Your task to perform on an android device: toggle improve location accuracy Image 0: 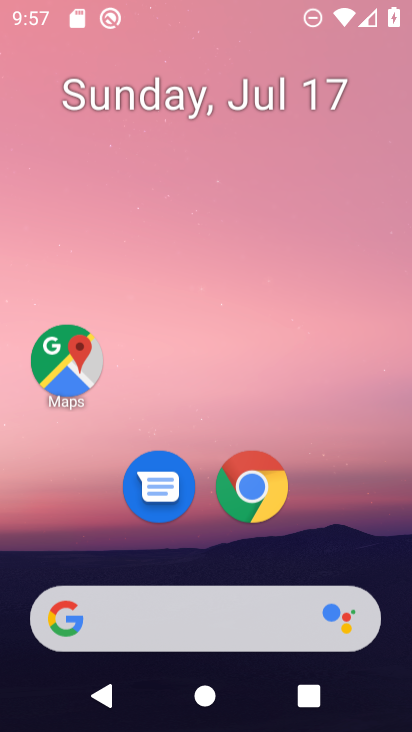
Step 0: press home button
Your task to perform on an android device: toggle improve location accuracy Image 1: 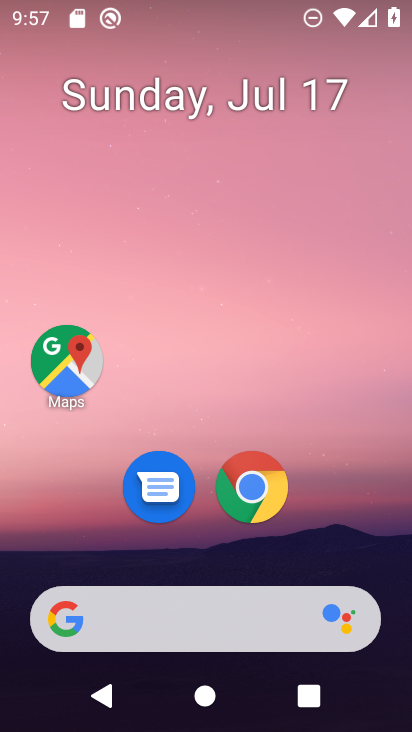
Step 1: drag from (326, 544) to (320, 65)
Your task to perform on an android device: toggle improve location accuracy Image 2: 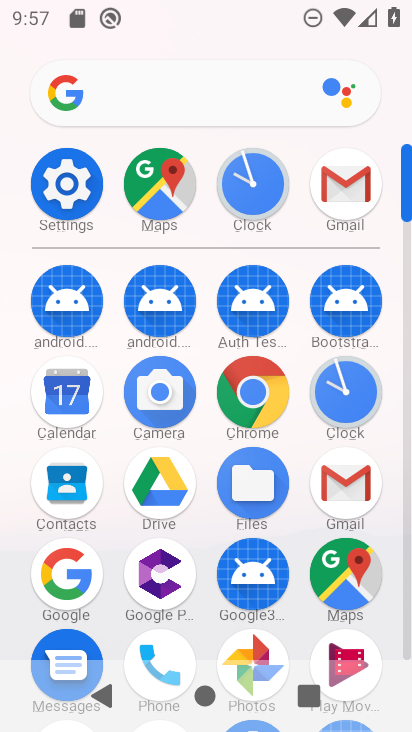
Step 2: click (76, 204)
Your task to perform on an android device: toggle improve location accuracy Image 3: 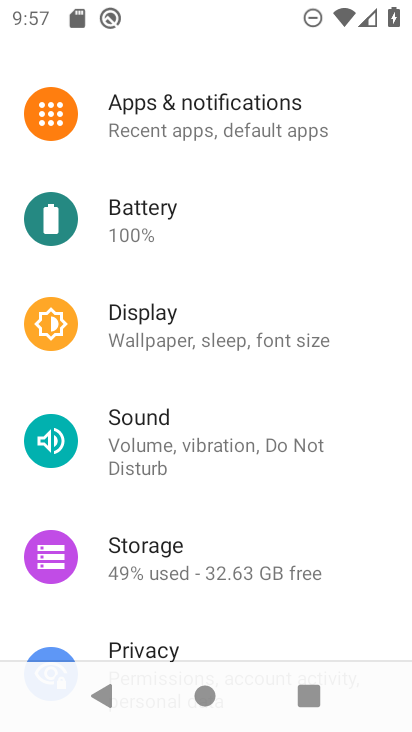
Step 3: drag from (390, 575) to (392, 159)
Your task to perform on an android device: toggle improve location accuracy Image 4: 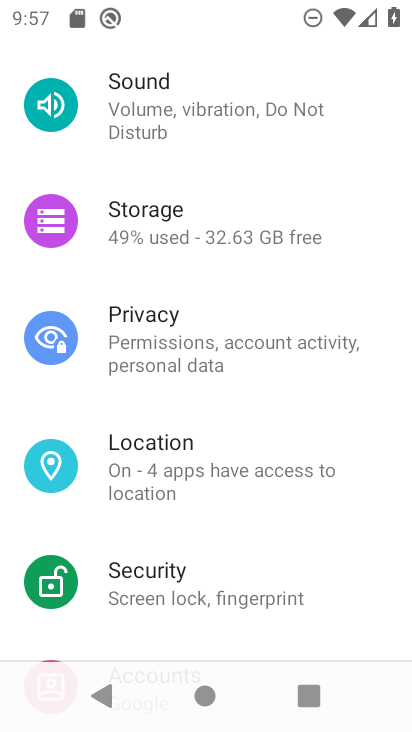
Step 4: click (120, 473)
Your task to perform on an android device: toggle improve location accuracy Image 5: 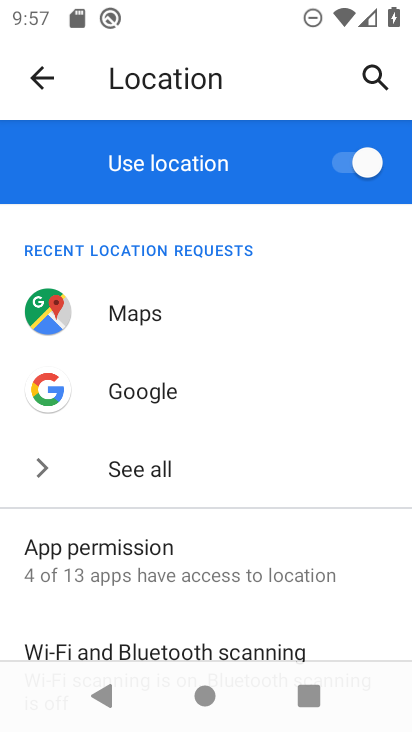
Step 5: drag from (384, 545) to (386, 54)
Your task to perform on an android device: toggle improve location accuracy Image 6: 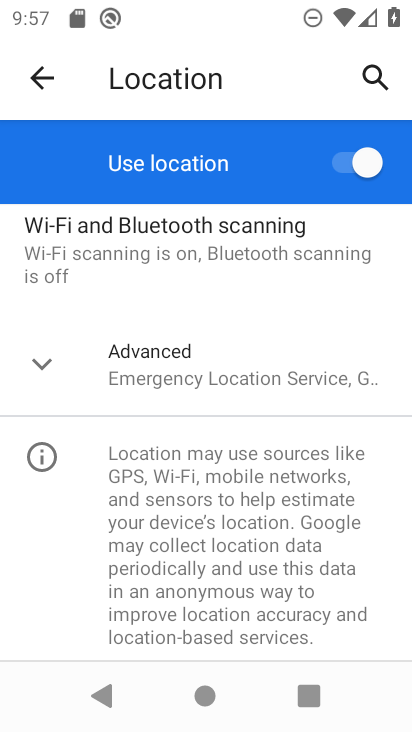
Step 6: click (129, 373)
Your task to perform on an android device: toggle improve location accuracy Image 7: 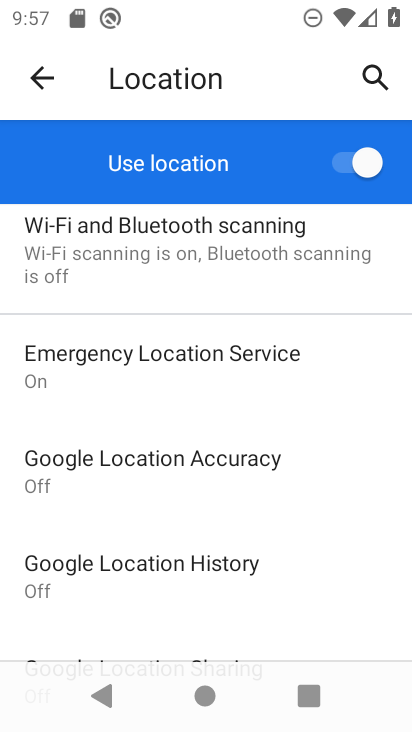
Step 7: click (152, 472)
Your task to perform on an android device: toggle improve location accuracy Image 8: 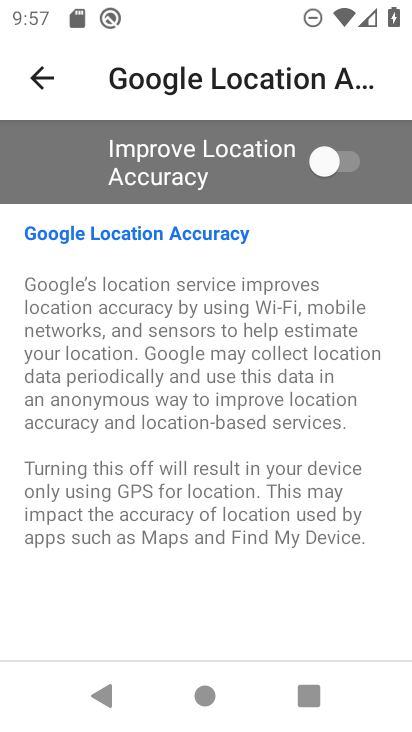
Step 8: click (315, 167)
Your task to perform on an android device: toggle improve location accuracy Image 9: 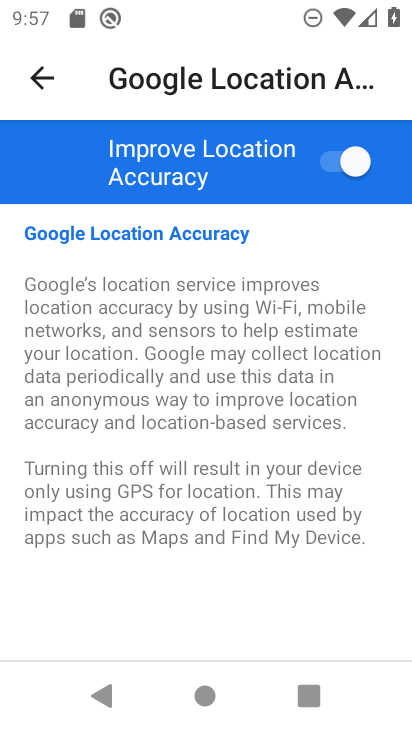
Step 9: task complete